Your task to perform on an android device: check battery use Image 0: 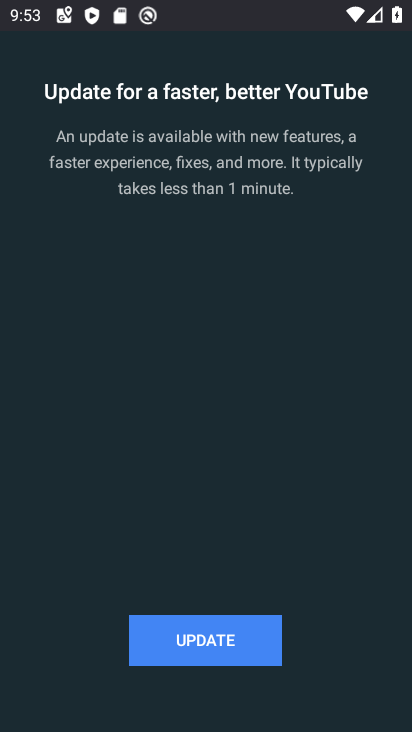
Step 0: press home button
Your task to perform on an android device: check battery use Image 1: 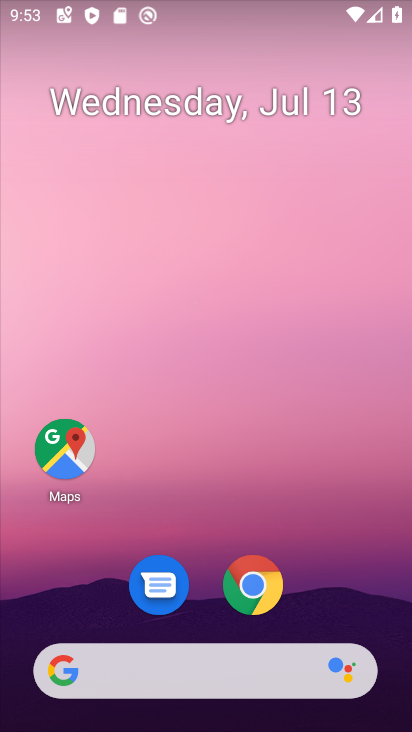
Step 1: drag from (305, 596) to (318, 38)
Your task to perform on an android device: check battery use Image 2: 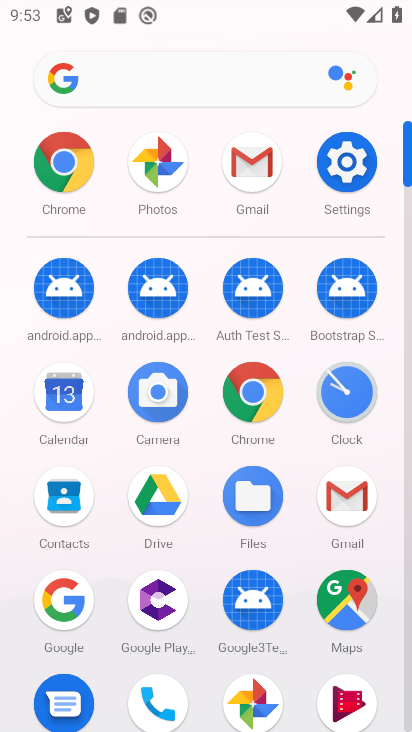
Step 2: click (349, 171)
Your task to perform on an android device: check battery use Image 3: 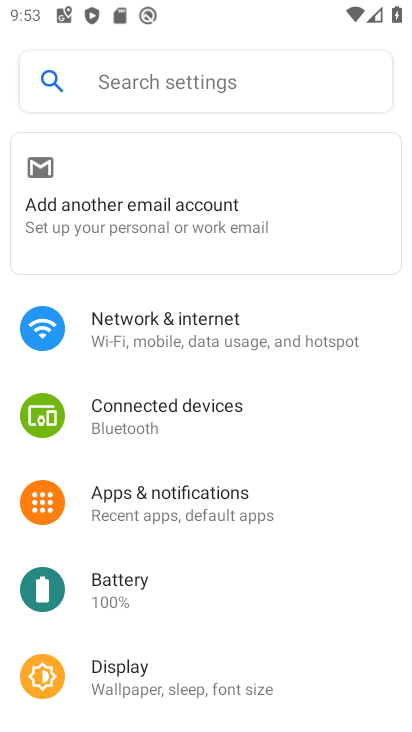
Step 3: click (136, 588)
Your task to perform on an android device: check battery use Image 4: 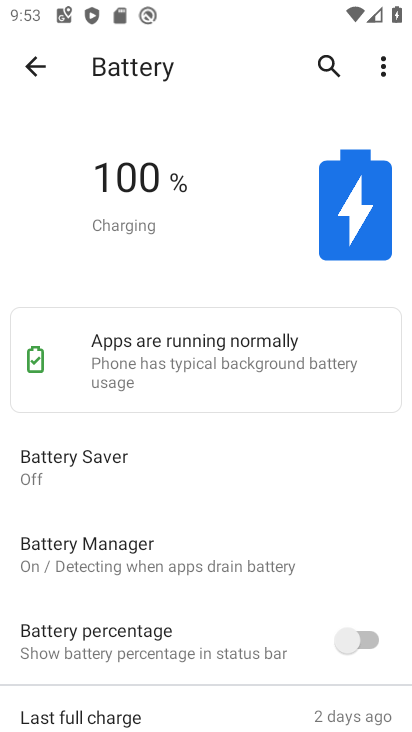
Step 4: task complete